Your task to perform on an android device: toggle wifi Image 0: 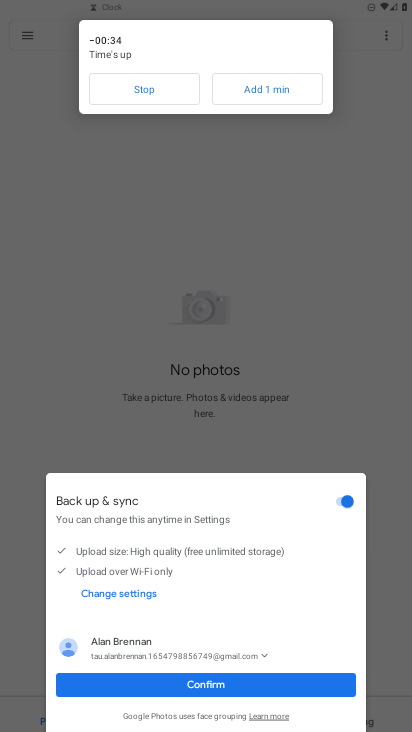
Step 0: press home button
Your task to perform on an android device: toggle wifi Image 1: 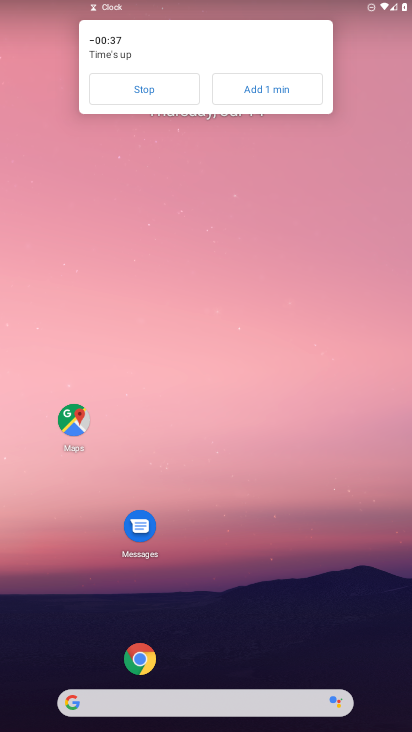
Step 1: drag from (63, 3) to (121, 492)
Your task to perform on an android device: toggle wifi Image 2: 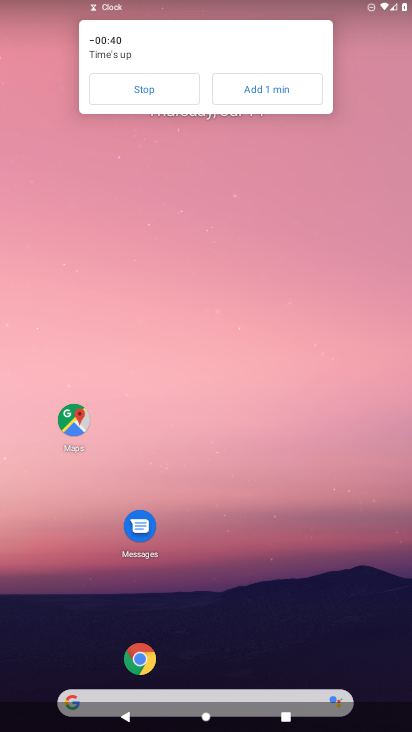
Step 2: drag from (24, 9) to (79, 643)
Your task to perform on an android device: toggle wifi Image 3: 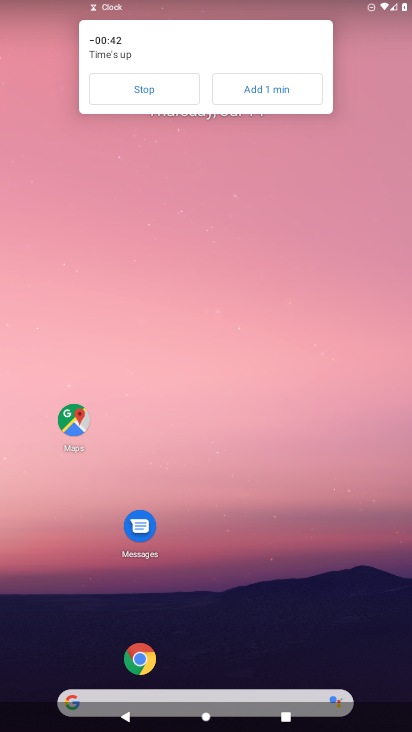
Step 3: drag from (197, 681) to (211, 277)
Your task to perform on an android device: toggle wifi Image 4: 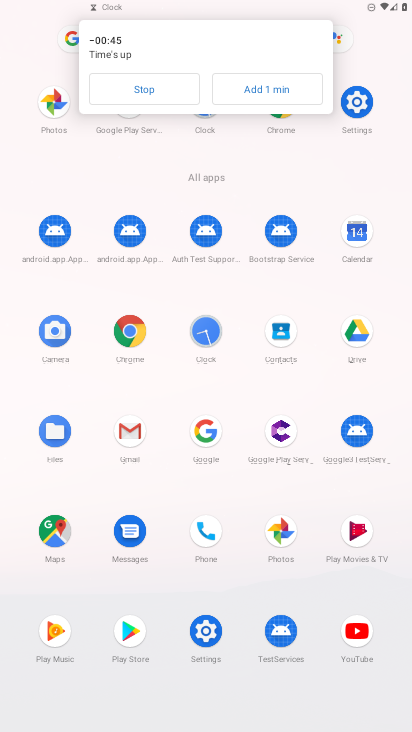
Step 4: click (374, 89)
Your task to perform on an android device: toggle wifi Image 5: 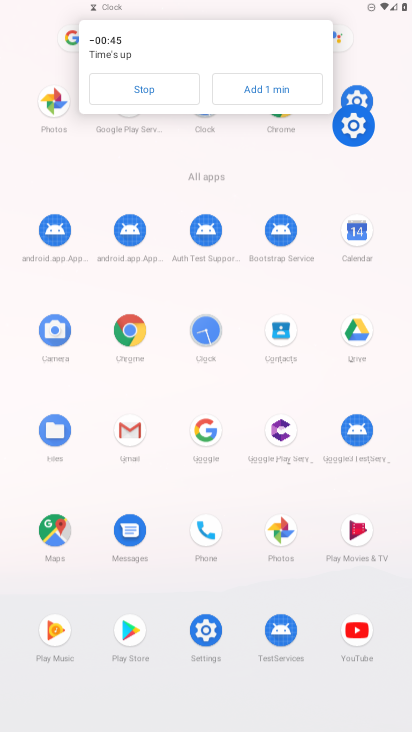
Step 5: click (133, 85)
Your task to perform on an android device: toggle wifi Image 6: 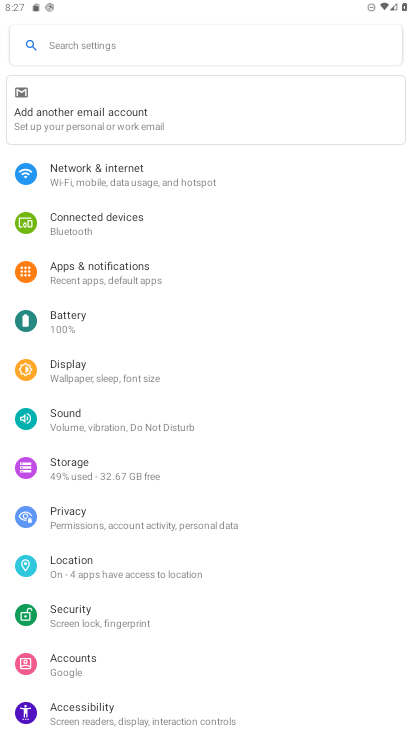
Step 6: click (85, 184)
Your task to perform on an android device: toggle wifi Image 7: 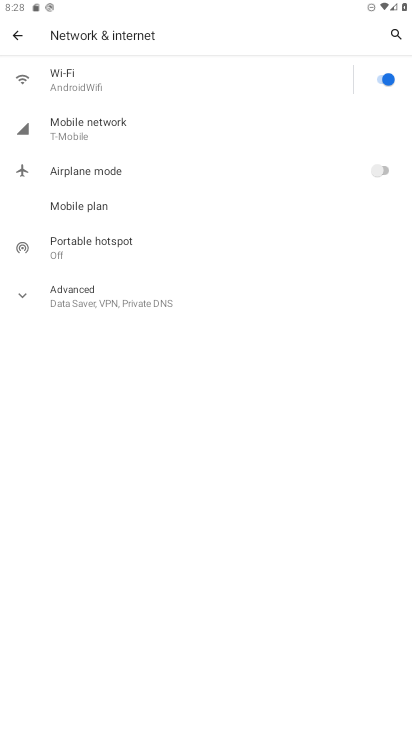
Step 7: click (386, 80)
Your task to perform on an android device: toggle wifi Image 8: 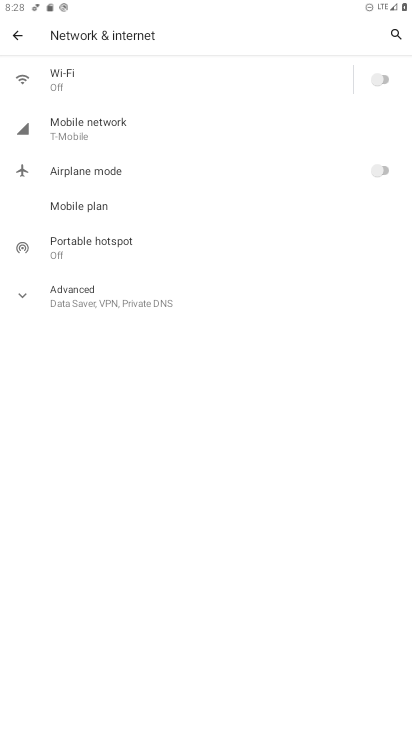
Step 8: task complete